Your task to perform on an android device: Open maps Image 0: 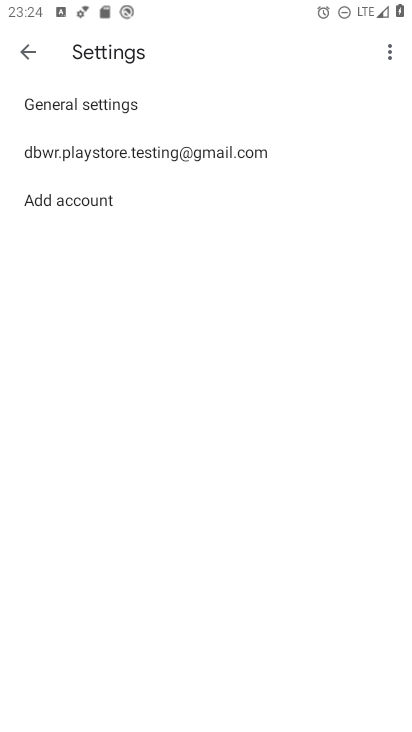
Step 0: press home button
Your task to perform on an android device: Open maps Image 1: 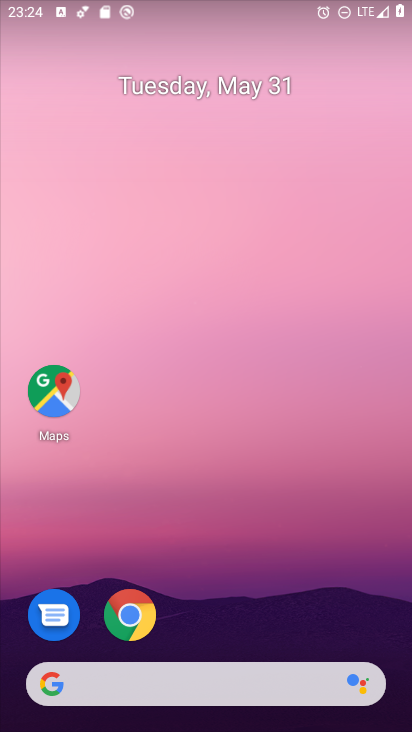
Step 1: click (53, 391)
Your task to perform on an android device: Open maps Image 2: 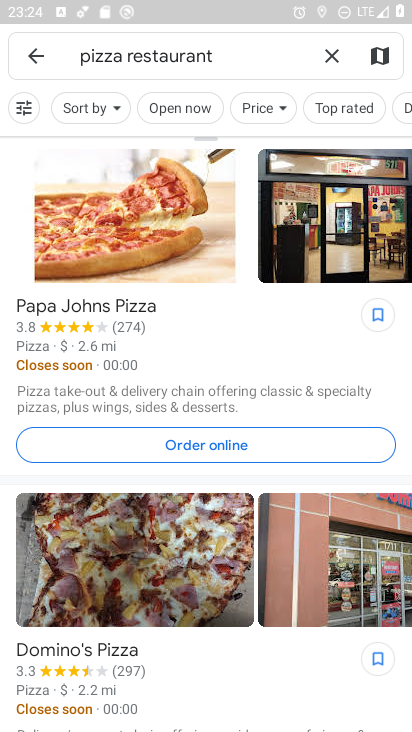
Step 2: click (330, 54)
Your task to perform on an android device: Open maps Image 3: 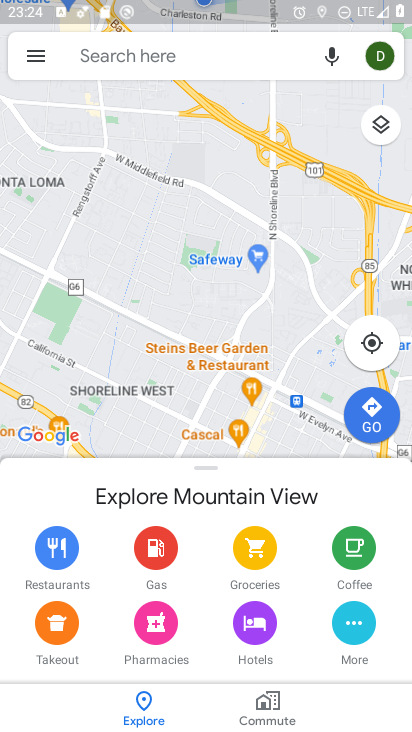
Step 3: task complete